Your task to perform on an android device: Play the last video I watched on Youtube Image 0: 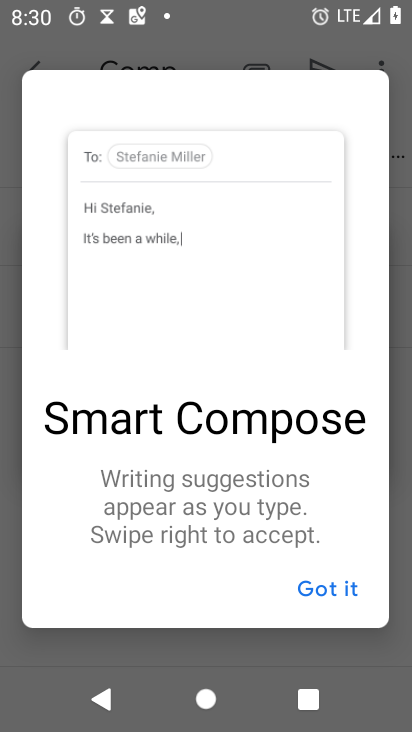
Step 0: press home button
Your task to perform on an android device: Play the last video I watched on Youtube Image 1: 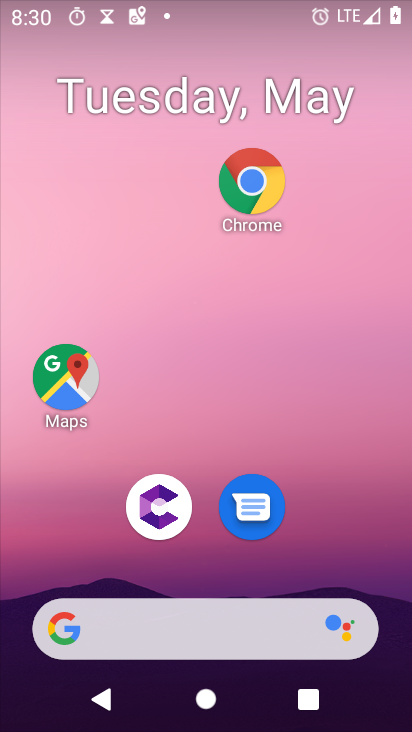
Step 1: drag from (290, 557) to (375, 53)
Your task to perform on an android device: Play the last video I watched on Youtube Image 2: 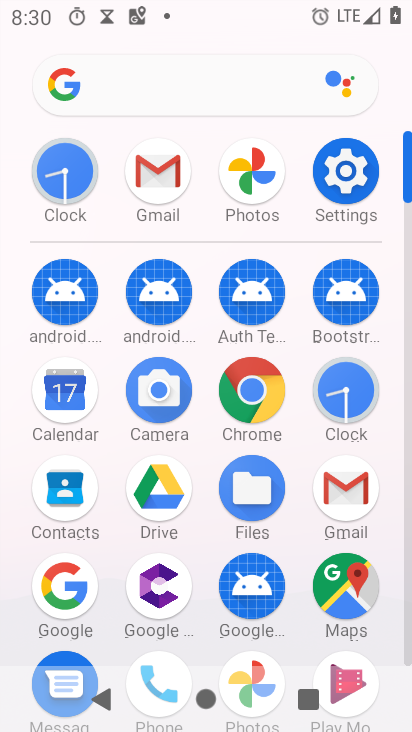
Step 2: drag from (297, 508) to (310, 224)
Your task to perform on an android device: Play the last video I watched on Youtube Image 3: 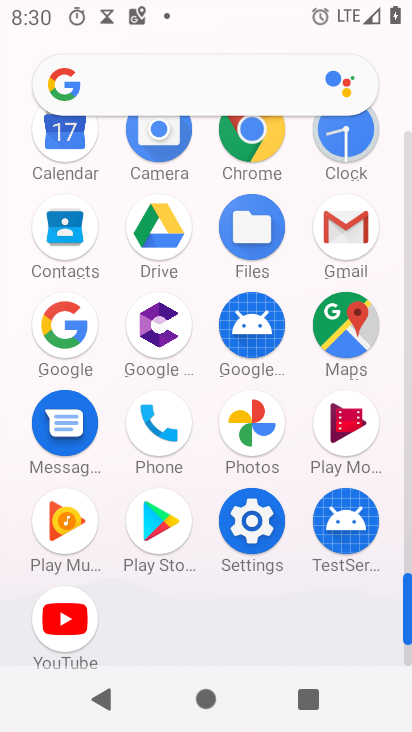
Step 3: click (62, 618)
Your task to perform on an android device: Play the last video I watched on Youtube Image 4: 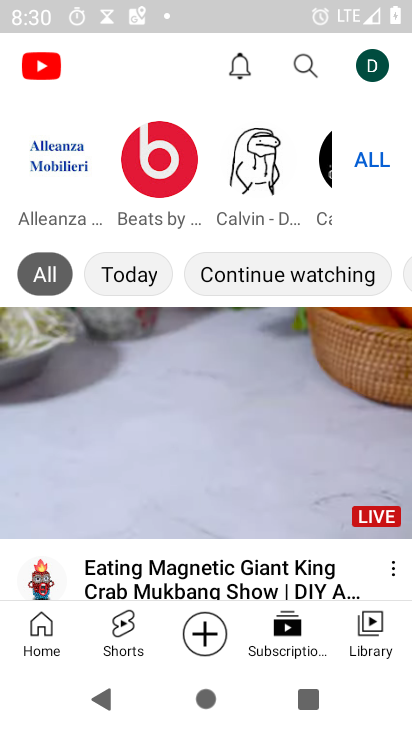
Step 4: click (362, 633)
Your task to perform on an android device: Play the last video I watched on Youtube Image 5: 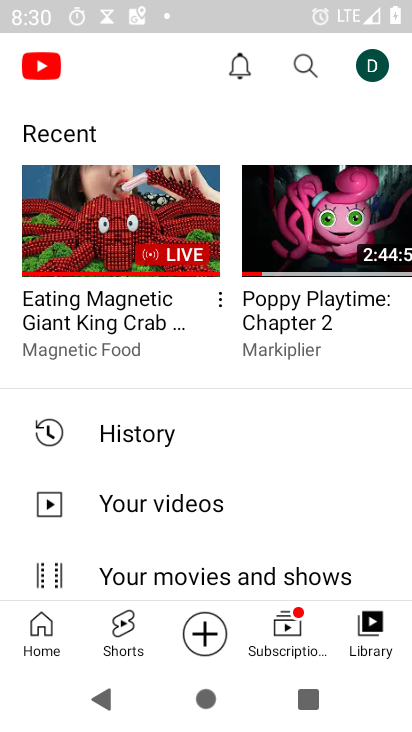
Step 5: click (132, 232)
Your task to perform on an android device: Play the last video I watched on Youtube Image 6: 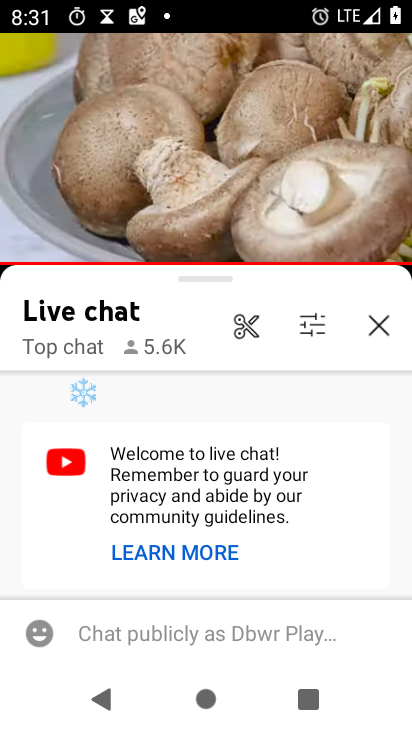
Step 6: task complete